Your task to perform on an android device: find which apps use the phone's location Image 0: 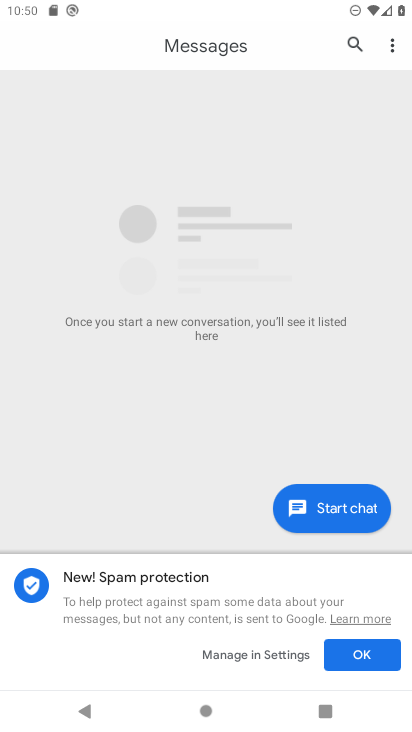
Step 0: press home button
Your task to perform on an android device: find which apps use the phone's location Image 1: 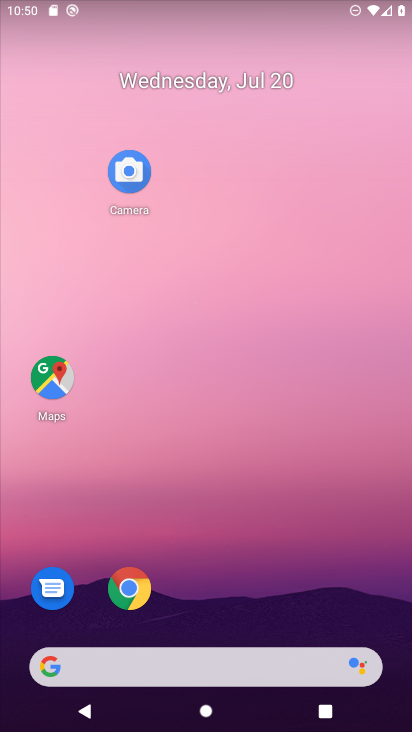
Step 1: drag from (298, 562) to (309, 134)
Your task to perform on an android device: find which apps use the phone's location Image 2: 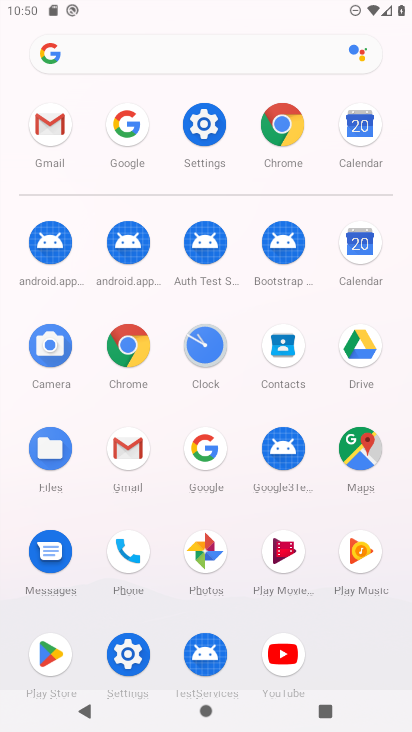
Step 2: click (204, 124)
Your task to perform on an android device: find which apps use the phone's location Image 3: 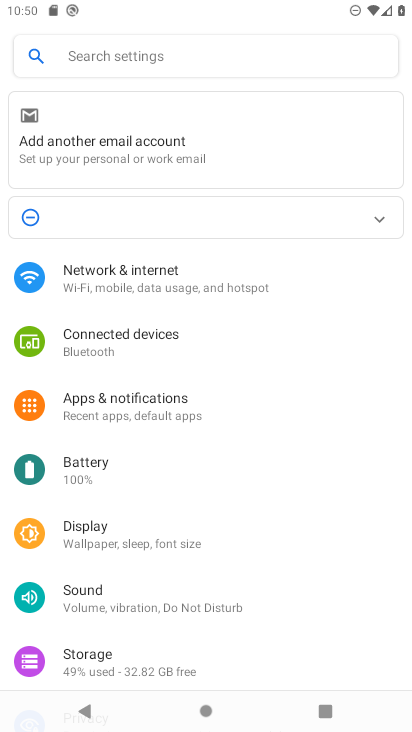
Step 3: drag from (175, 510) to (160, 235)
Your task to perform on an android device: find which apps use the phone's location Image 4: 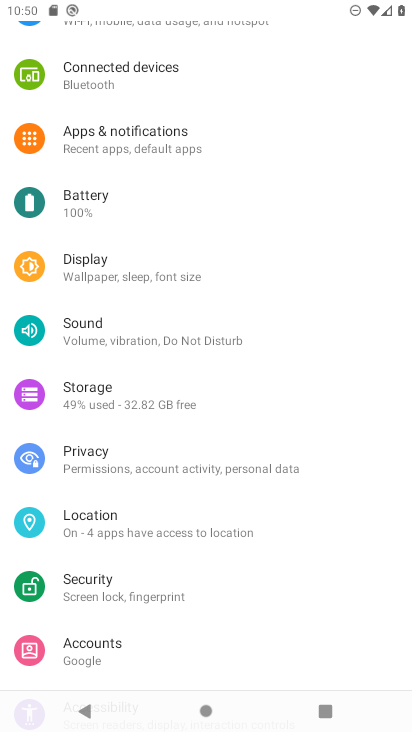
Step 4: click (86, 525)
Your task to perform on an android device: find which apps use the phone's location Image 5: 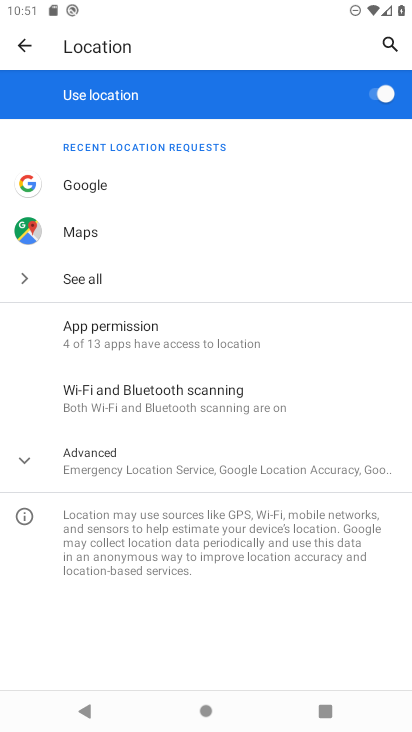
Step 5: click (110, 336)
Your task to perform on an android device: find which apps use the phone's location Image 6: 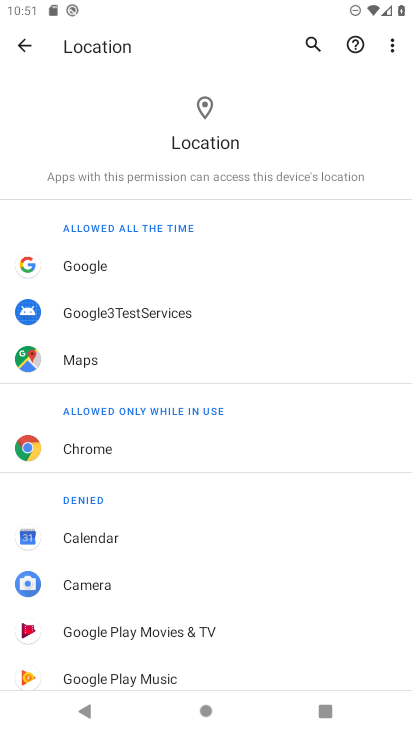
Step 6: task complete